Your task to perform on an android device: Go to privacy settings Image 0: 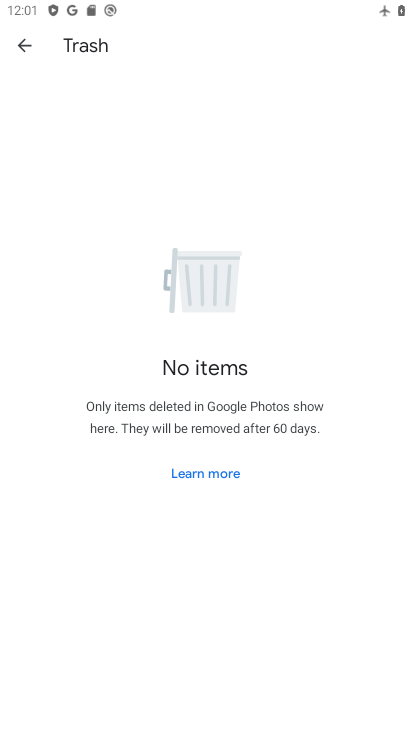
Step 0: press home button
Your task to perform on an android device: Go to privacy settings Image 1: 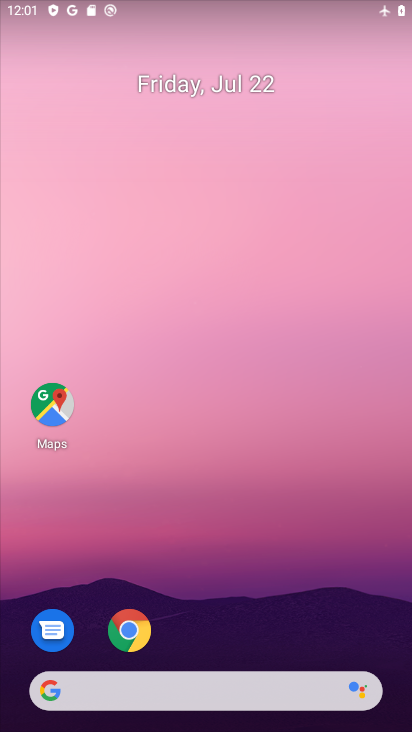
Step 1: drag from (194, 155) to (194, 59)
Your task to perform on an android device: Go to privacy settings Image 2: 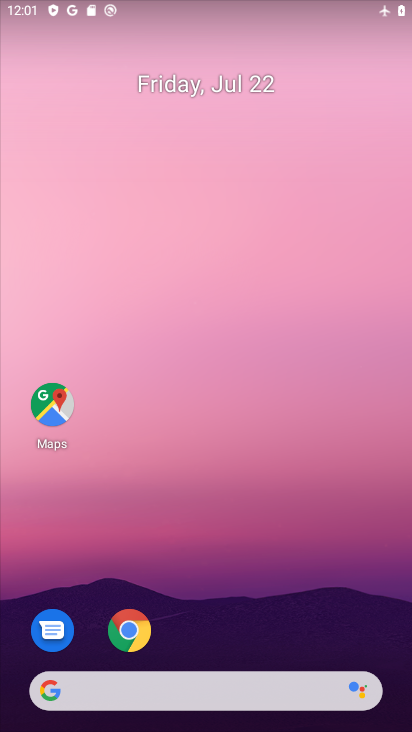
Step 2: drag from (213, 654) to (137, 161)
Your task to perform on an android device: Go to privacy settings Image 3: 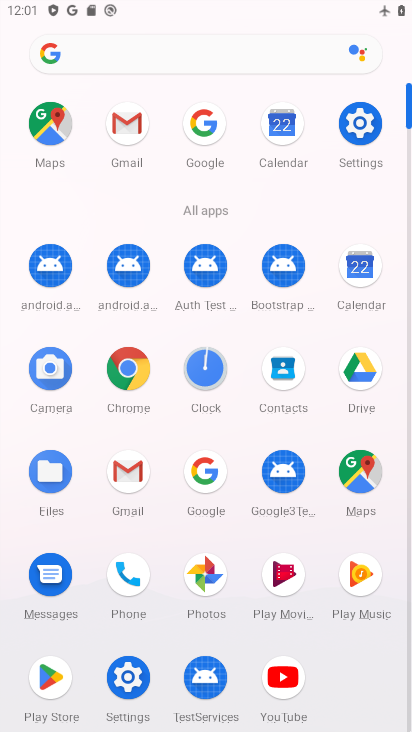
Step 3: click (341, 133)
Your task to perform on an android device: Go to privacy settings Image 4: 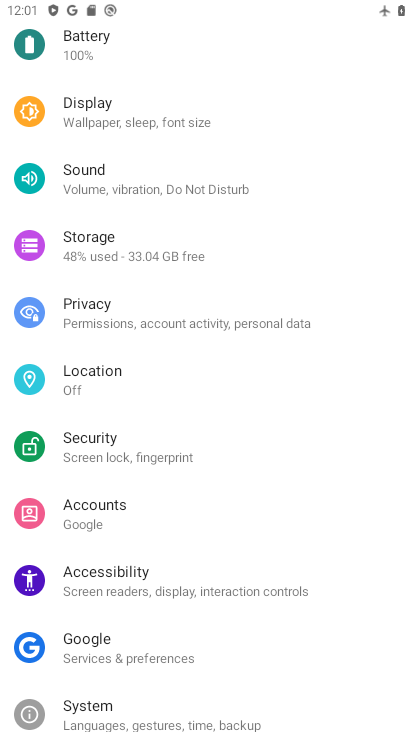
Step 4: click (120, 315)
Your task to perform on an android device: Go to privacy settings Image 5: 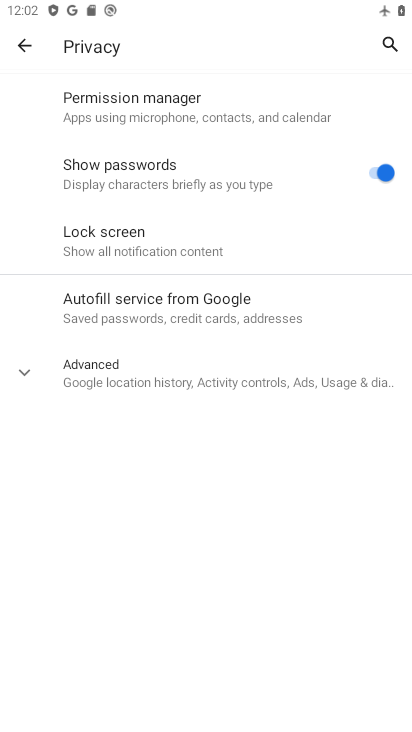
Step 5: click (118, 391)
Your task to perform on an android device: Go to privacy settings Image 6: 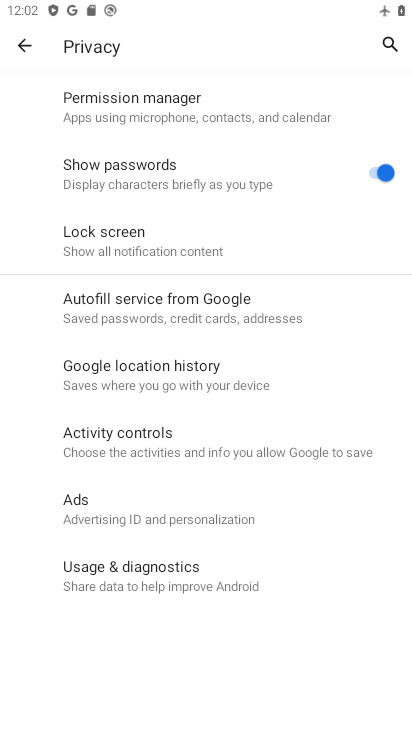
Step 6: task complete